Your task to perform on an android device: Do I have any events today? Image 0: 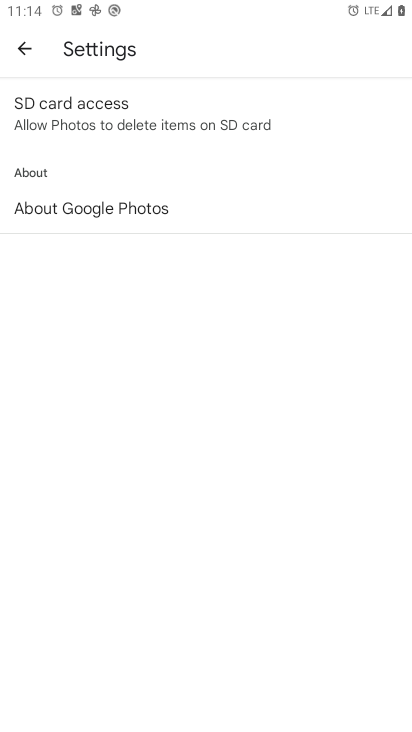
Step 0: press home button
Your task to perform on an android device: Do I have any events today? Image 1: 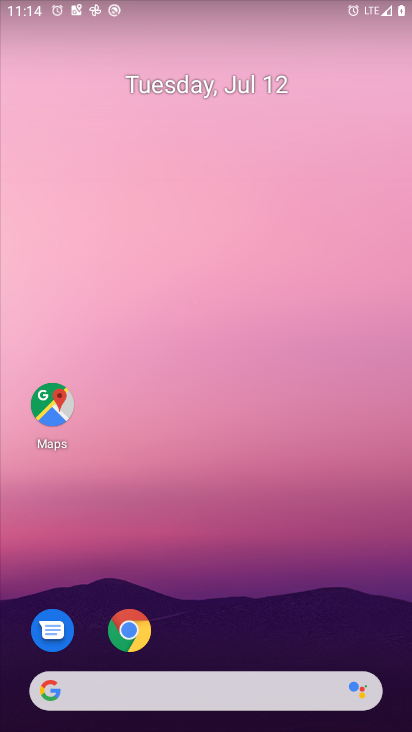
Step 1: drag from (245, 554) to (223, 152)
Your task to perform on an android device: Do I have any events today? Image 2: 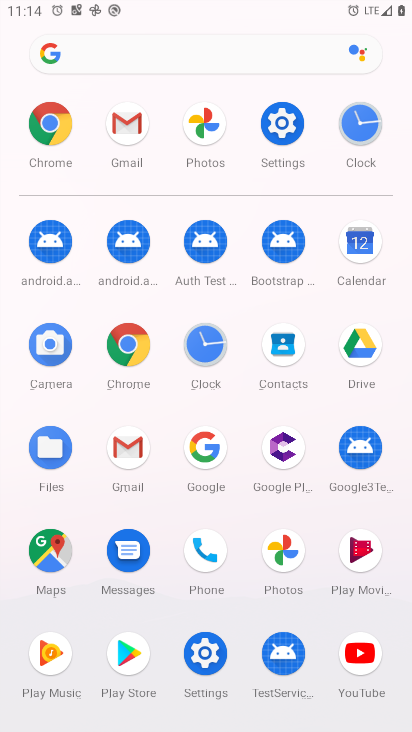
Step 2: click (357, 241)
Your task to perform on an android device: Do I have any events today? Image 3: 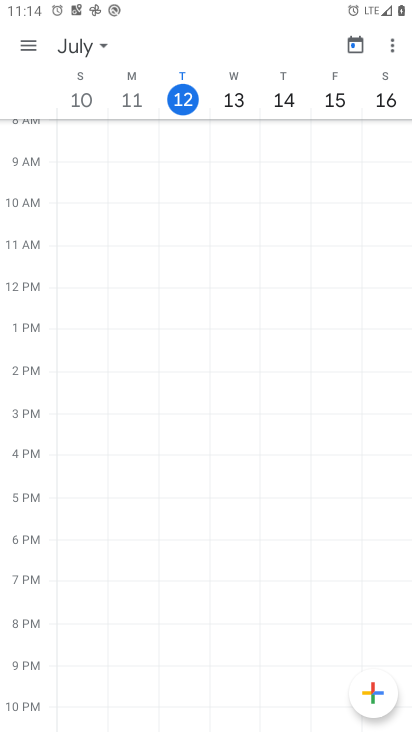
Step 3: click (30, 38)
Your task to perform on an android device: Do I have any events today? Image 4: 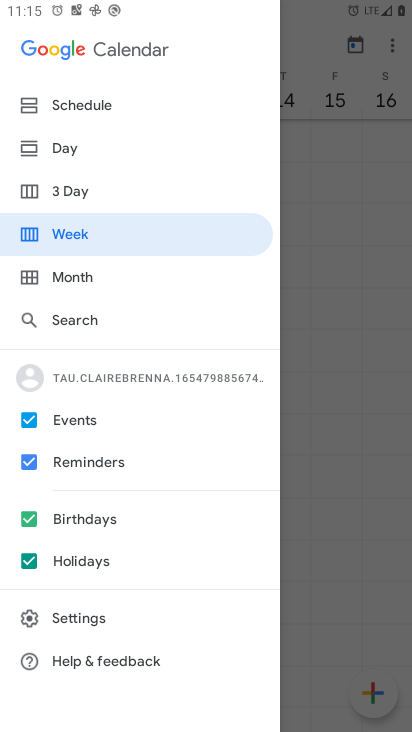
Step 4: click (62, 153)
Your task to perform on an android device: Do I have any events today? Image 5: 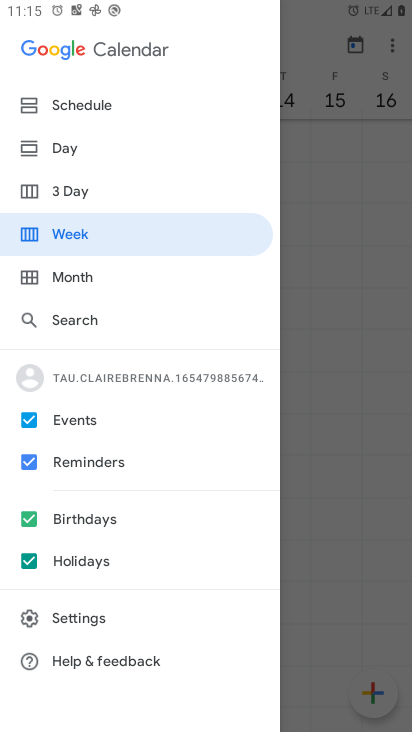
Step 5: click (64, 152)
Your task to perform on an android device: Do I have any events today? Image 6: 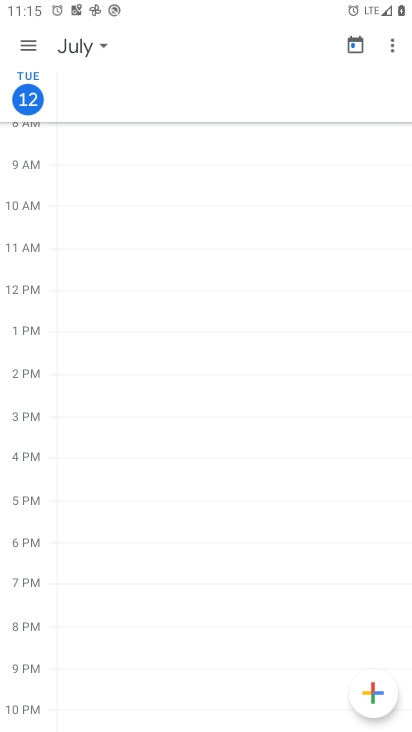
Step 6: task complete